Your task to perform on an android device: Search for Mexican restaurants on Maps Image 0: 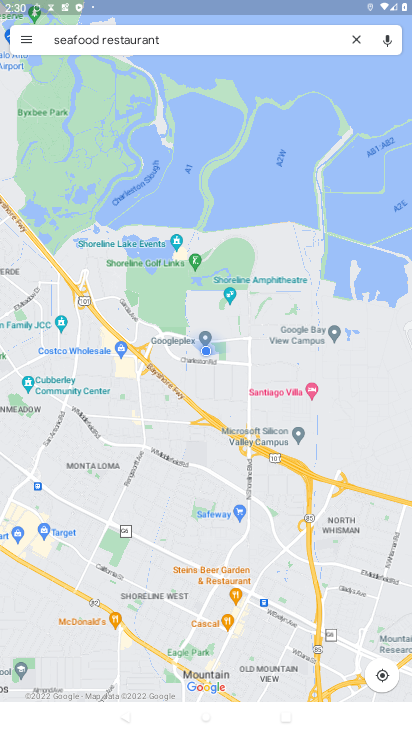
Step 0: click (110, 29)
Your task to perform on an android device: Search for Mexican restaurants on Maps Image 1: 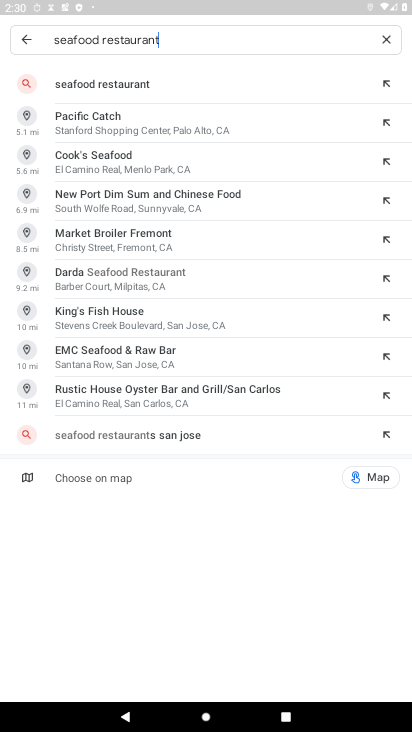
Step 1: press back button
Your task to perform on an android device: Search for Mexican restaurants on Maps Image 2: 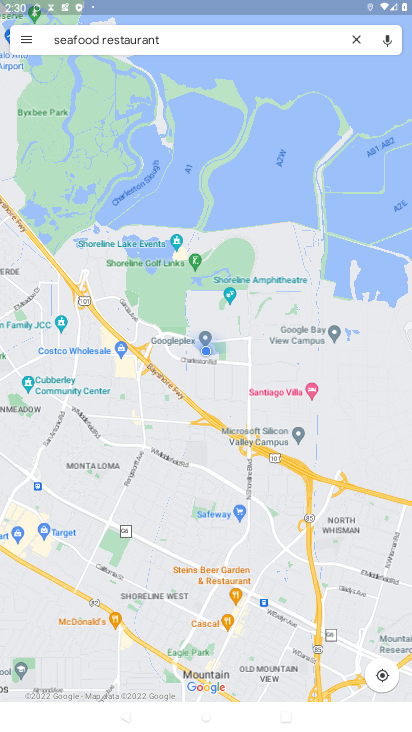
Step 2: press back button
Your task to perform on an android device: Search for Mexican restaurants on Maps Image 3: 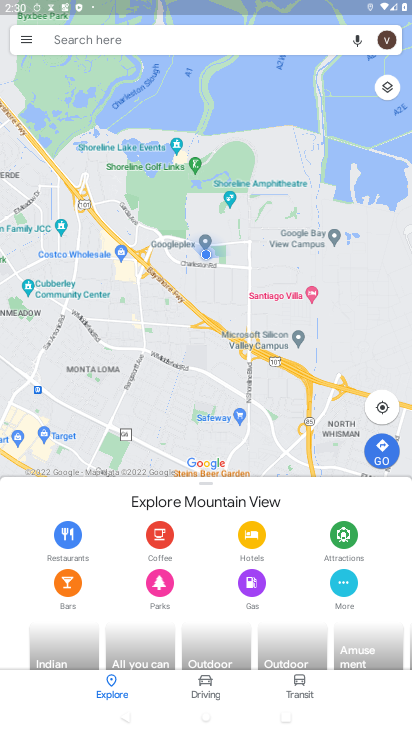
Step 3: click (105, 31)
Your task to perform on an android device: Search for Mexican restaurants on Maps Image 4: 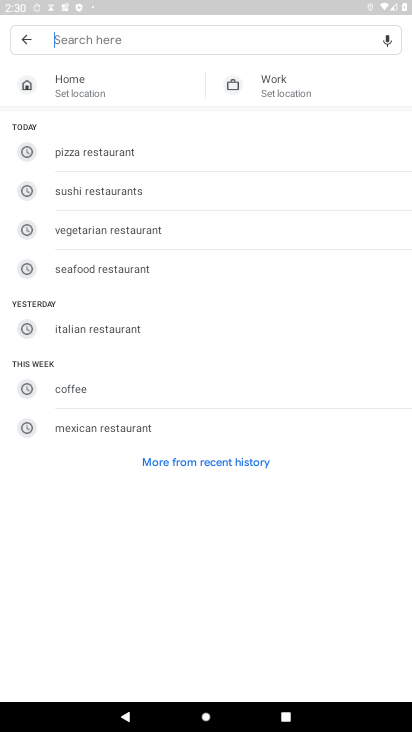
Step 4: click (105, 426)
Your task to perform on an android device: Search for Mexican restaurants on Maps Image 5: 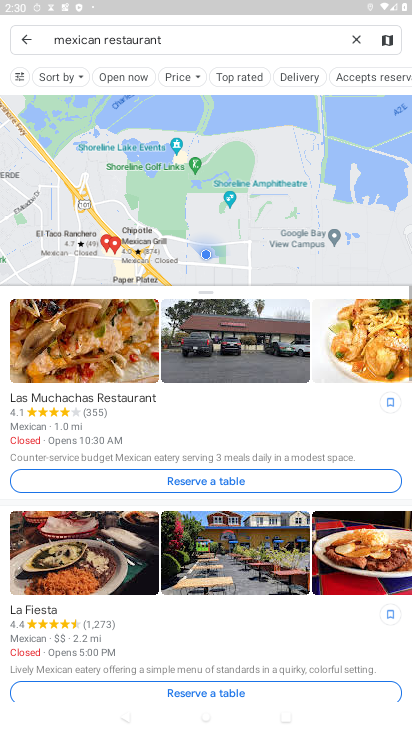
Step 5: task complete